Your task to perform on an android device: What's the weather today? Image 0: 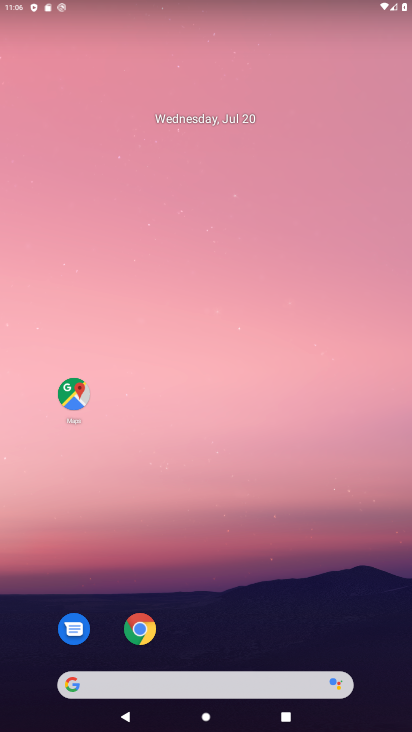
Step 0: drag from (298, 617) to (286, 11)
Your task to perform on an android device: What's the weather today? Image 1: 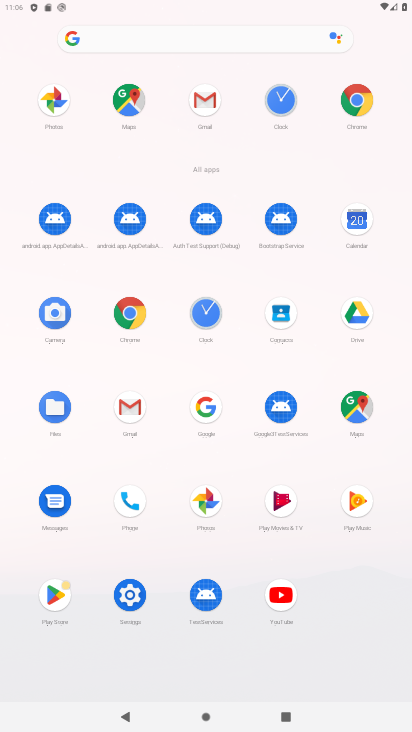
Step 1: click (124, 310)
Your task to perform on an android device: What's the weather today? Image 2: 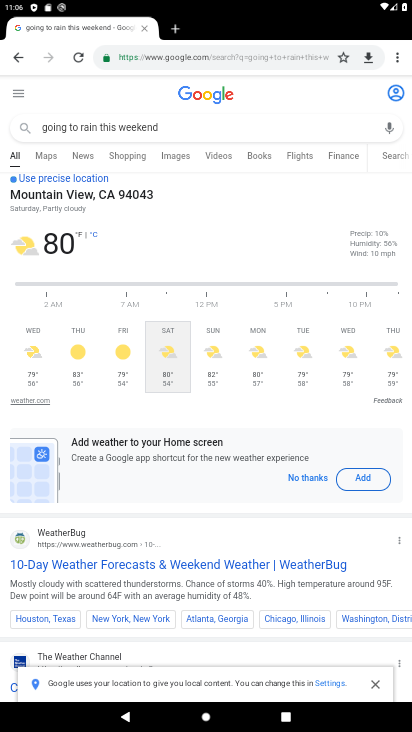
Step 2: click (194, 54)
Your task to perform on an android device: What's the weather today? Image 3: 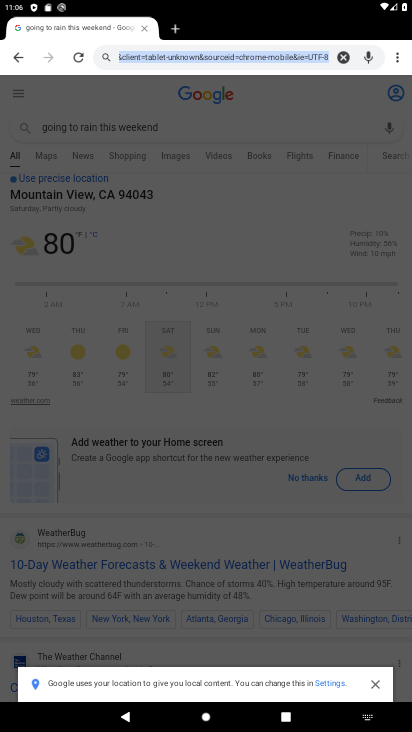
Step 3: type "weather today"
Your task to perform on an android device: What's the weather today? Image 4: 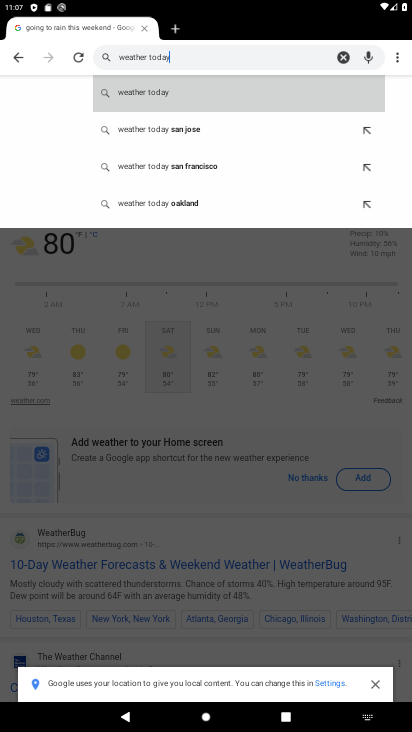
Step 4: click (232, 87)
Your task to perform on an android device: What's the weather today? Image 5: 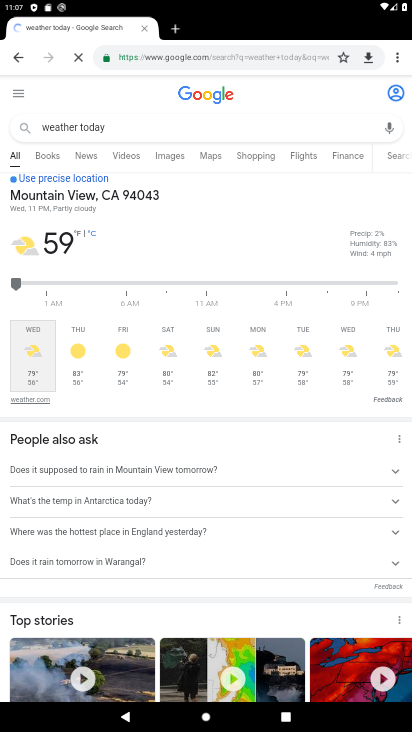
Step 5: task complete